Your task to perform on an android device: Open Reddit.com Image 0: 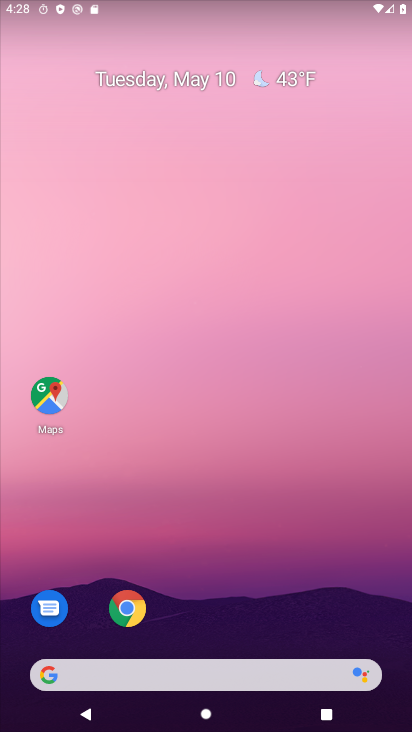
Step 0: drag from (258, 618) to (30, 94)
Your task to perform on an android device: Open Reddit.com Image 1: 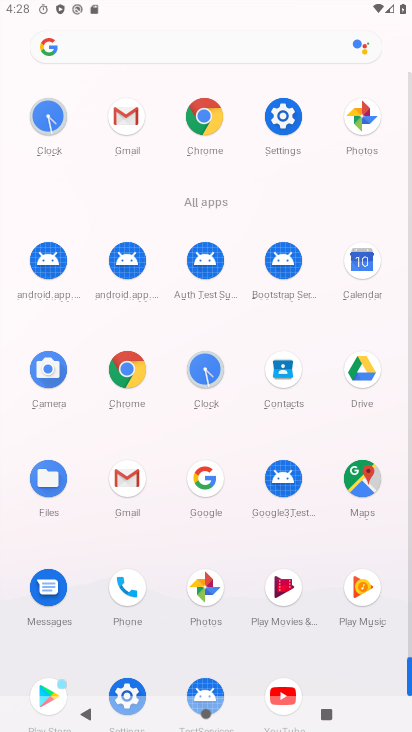
Step 1: click (208, 126)
Your task to perform on an android device: Open Reddit.com Image 2: 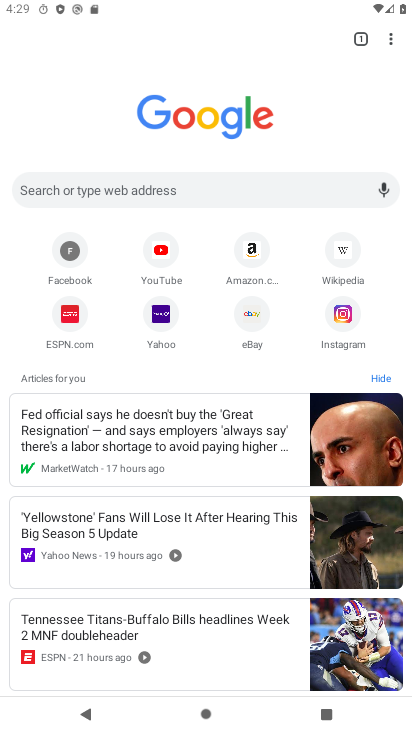
Step 2: click (72, 187)
Your task to perform on an android device: Open Reddit.com Image 3: 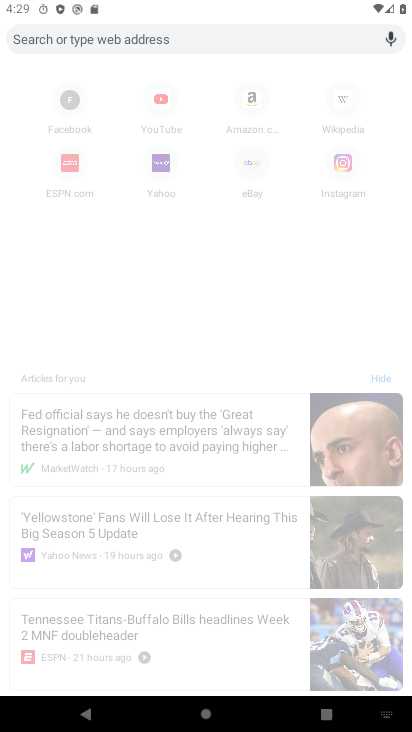
Step 3: type "reddit.com"
Your task to perform on an android device: Open Reddit.com Image 4: 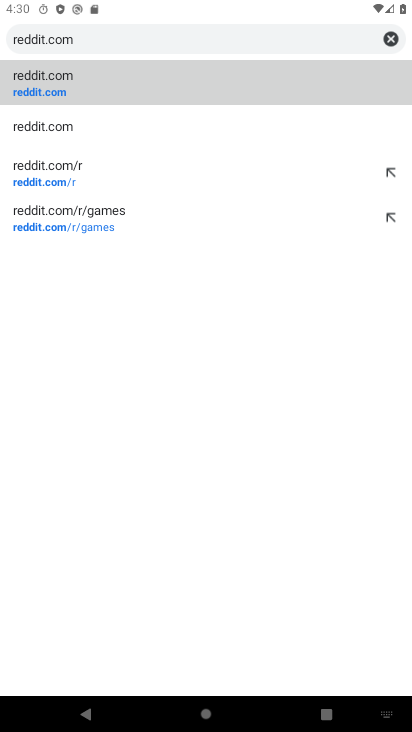
Step 4: click (47, 88)
Your task to perform on an android device: Open Reddit.com Image 5: 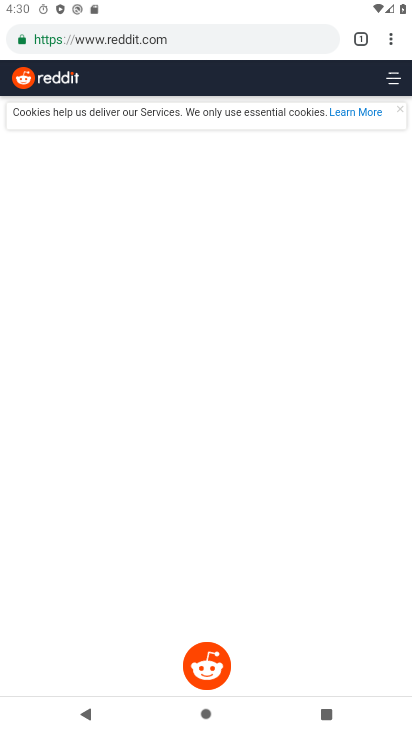
Step 5: task complete